Your task to perform on an android device: Open Chrome and go to the settings page Image 0: 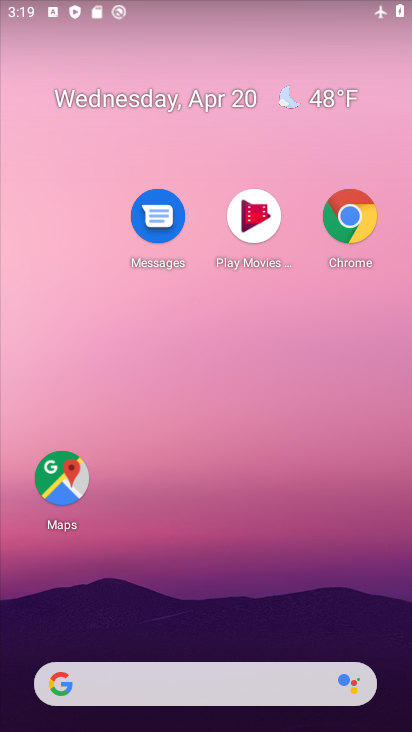
Step 0: drag from (208, 545) to (227, 140)
Your task to perform on an android device: Open Chrome and go to the settings page Image 1: 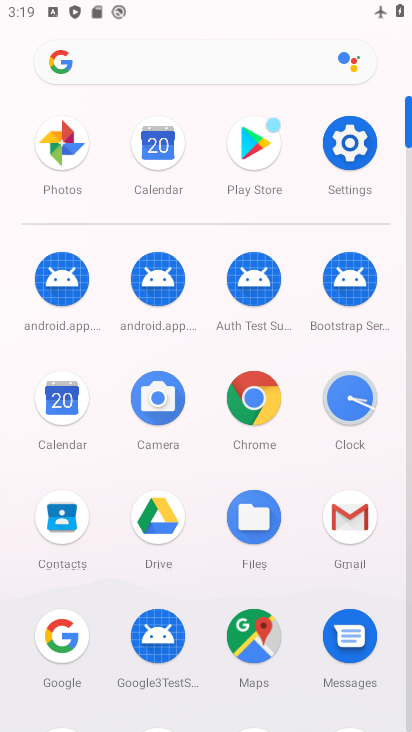
Step 1: click (246, 412)
Your task to perform on an android device: Open Chrome and go to the settings page Image 2: 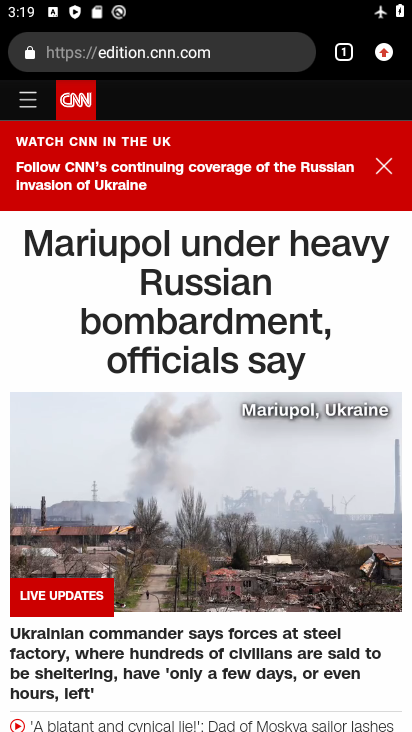
Step 2: click (386, 62)
Your task to perform on an android device: Open Chrome and go to the settings page Image 3: 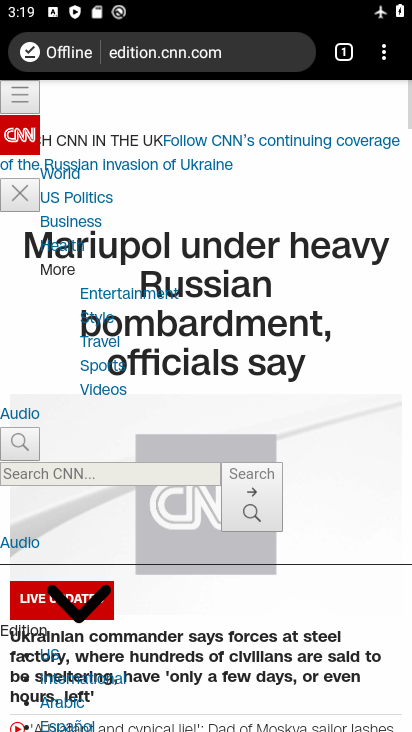
Step 3: click (382, 43)
Your task to perform on an android device: Open Chrome and go to the settings page Image 4: 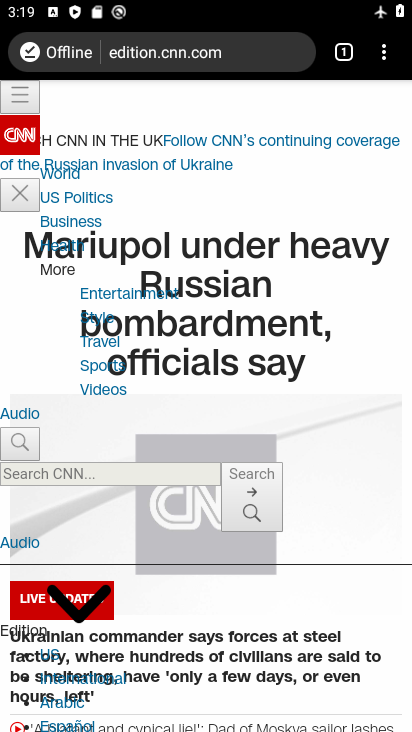
Step 4: click (384, 60)
Your task to perform on an android device: Open Chrome and go to the settings page Image 5: 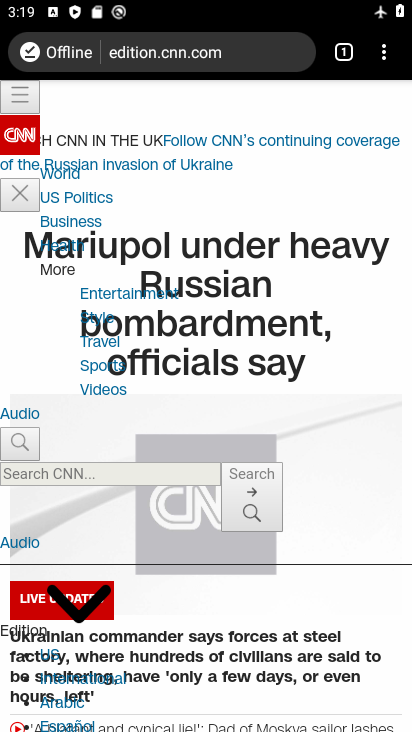
Step 5: click (390, 61)
Your task to perform on an android device: Open Chrome and go to the settings page Image 6: 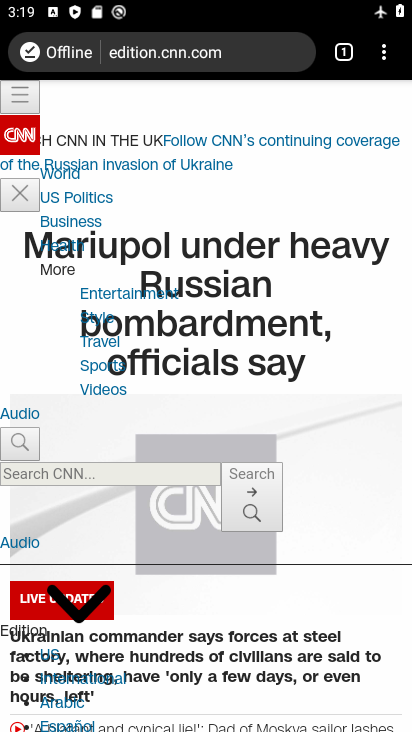
Step 6: click (384, 62)
Your task to perform on an android device: Open Chrome and go to the settings page Image 7: 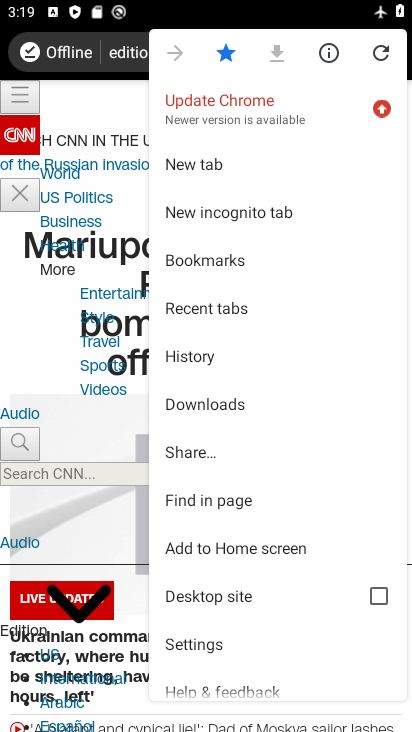
Step 7: click (224, 644)
Your task to perform on an android device: Open Chrome and go to the settings page Image 8: 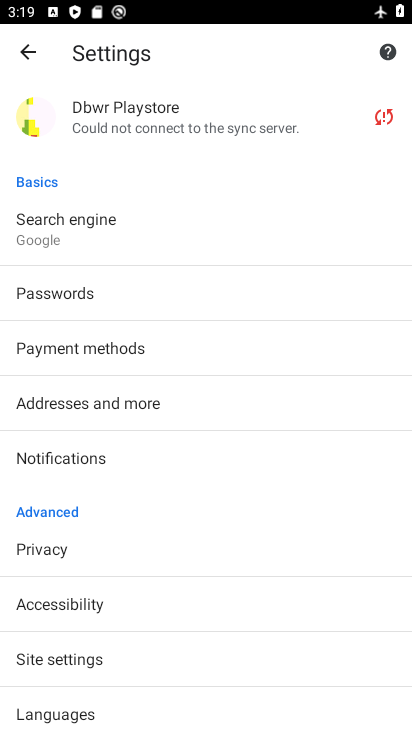
Step 8: task complete